Your task to perform on an android device: Open Google Chrome and open the bookmarks view Image 0: 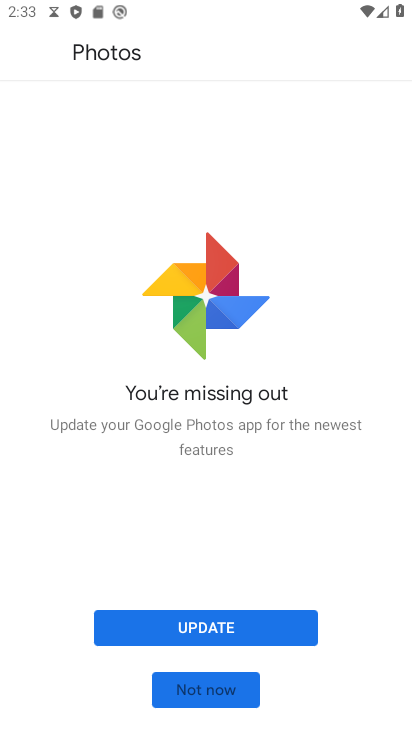
Step 0: click (197, 690)
Your task to perform on an android device: Open Google Chrome and open the bookmarks view Image 1: 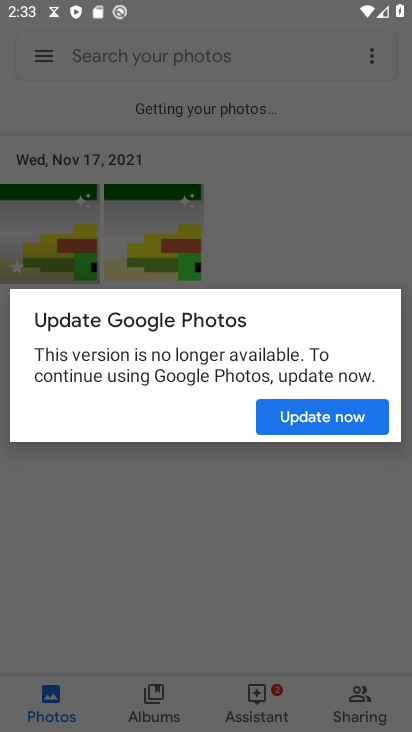
Step 1: press home button
Your task to perform on an android device: Open Google Chrome and open the bookmarks view Image 2: 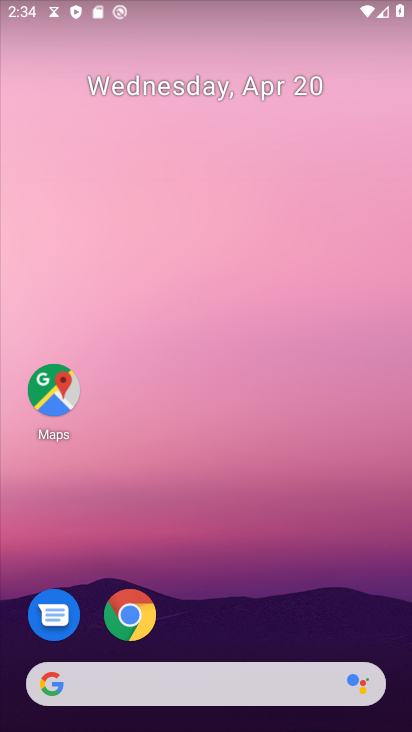
Step 2: drag from (176, 581) to (240, 210)
Your task to perform on an android device: Open Google Chrome and open the bookmarks view Image 3: 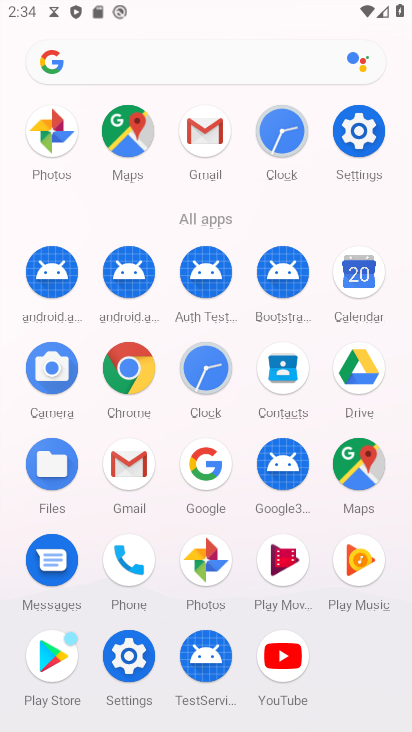
Step 3: click (126, 362)
Your task to perform on an android device: Open Google Chrome and open the bookmarks view Image 4: 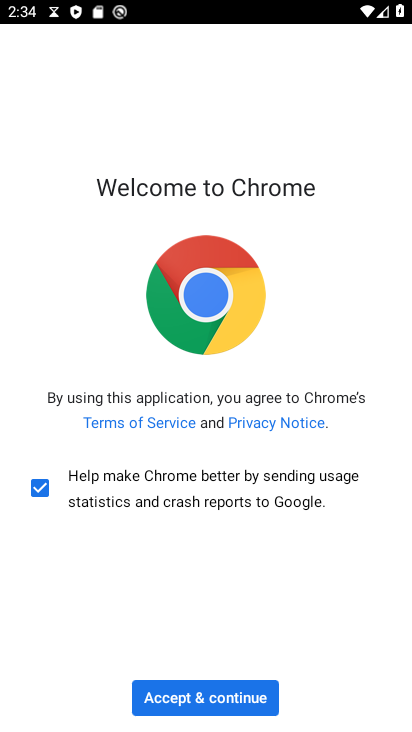
Step 4: click (200, 705)
Your task to perform on an android device: Open Google Chrome and open the bookmarks view Image 5: 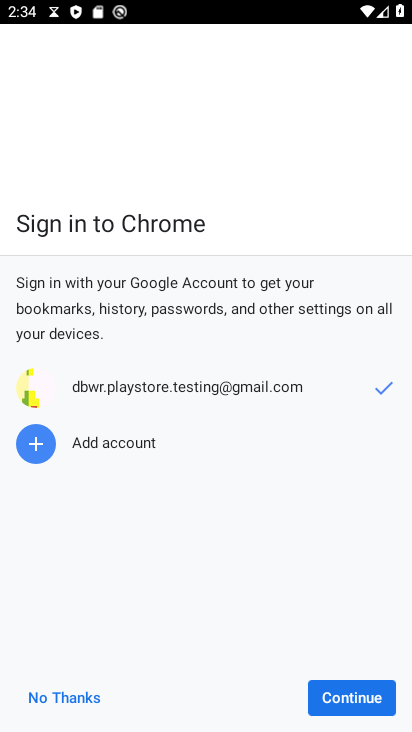
Step 5: drag from (117, 653) to (194, 423)
Your task to perform on an android device: Open Google Chrome and open the bookmarks view Image 6: 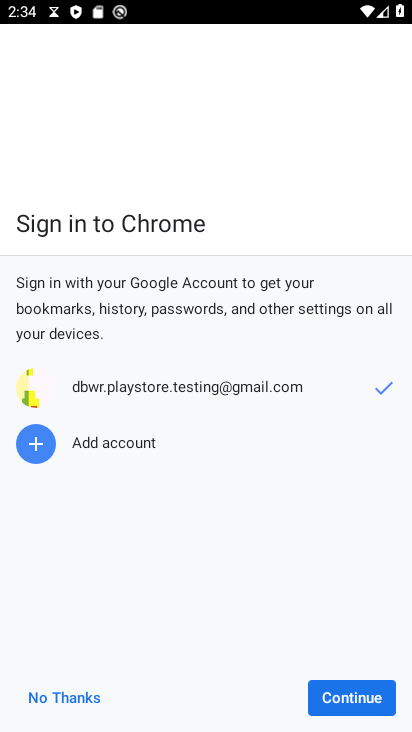
Step 6: drag from (140, 553) to (176, 267)
Your task to perform on an android device: Open Google Chrome and open the bookmarks view Image 7: 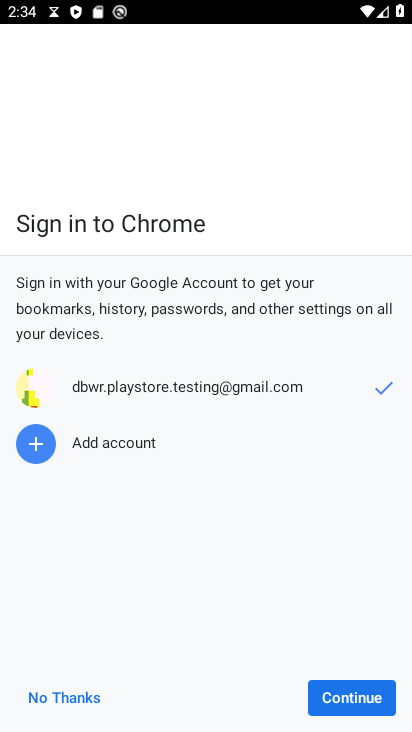
Step 7: click (57, 684)
Your task to perform on an android device: Open Google Chrome and open the bookmarks view Image 8: 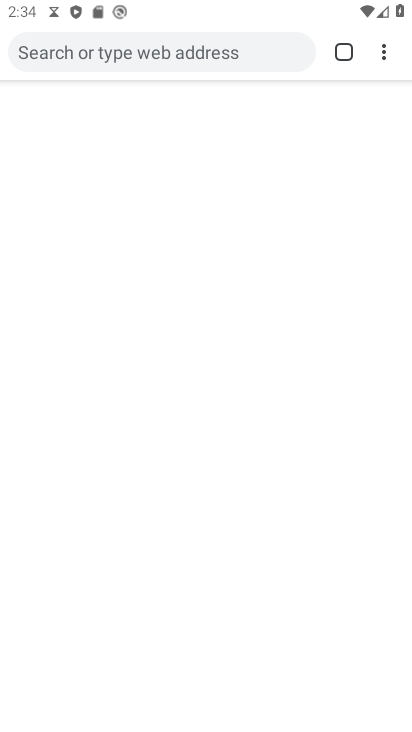
Step 8: task complete